Your task to perform on an android device: Open Maps and search for coffee Image 0: 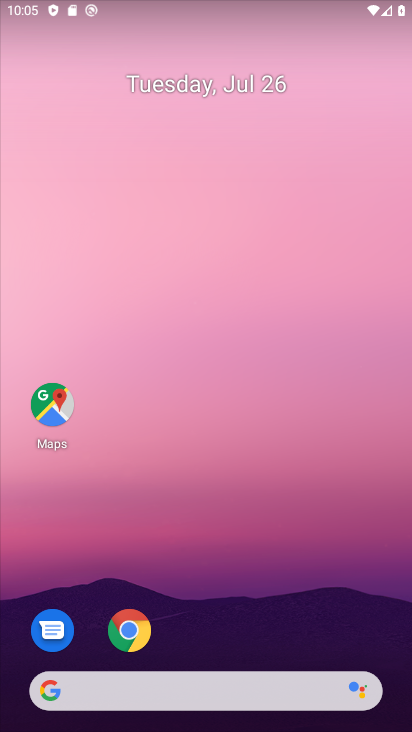
Step 0: click (53, 403)
Your task to perform on an android device: Open Maps and search for coffee Image 1: 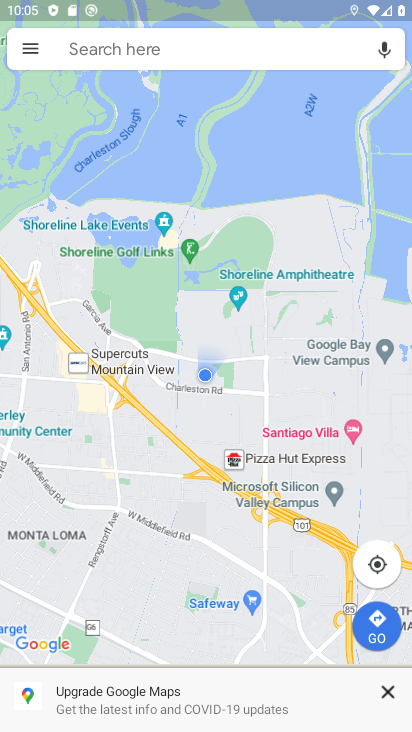
Step 1: click (132, 46)
Your task to perform on an android device: Open Maps and search for coffee Image 2: 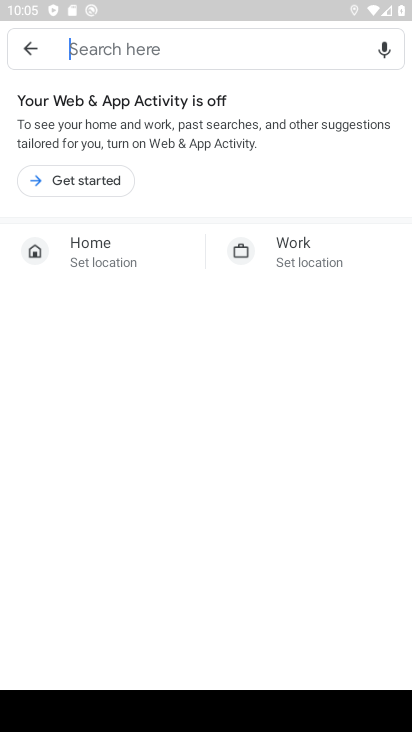
Step 2: type "coffee"
Your task to perform on an android device: Open Maps and search for coffee Image 3: 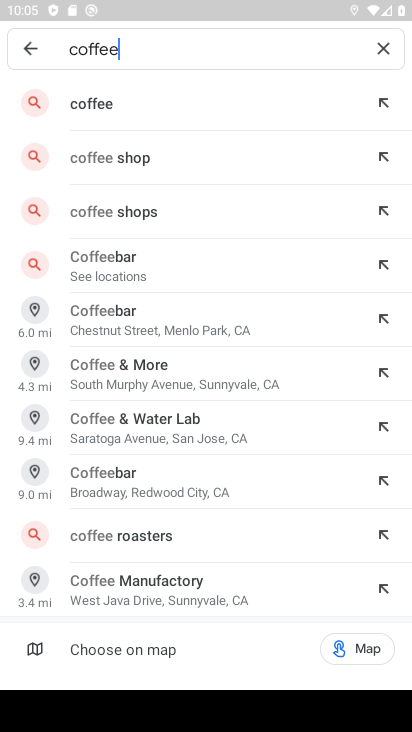
Step 3: click (100, 97)
Your task to perform on an android device: Open Maps and search for coffee Image 4: 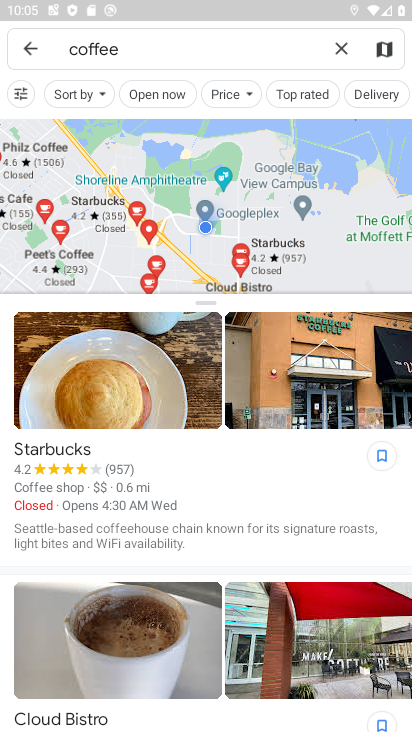
Step 4: click (214, 554)
Your task to perform on an android device: Open Maps and search for coffee Image 5: 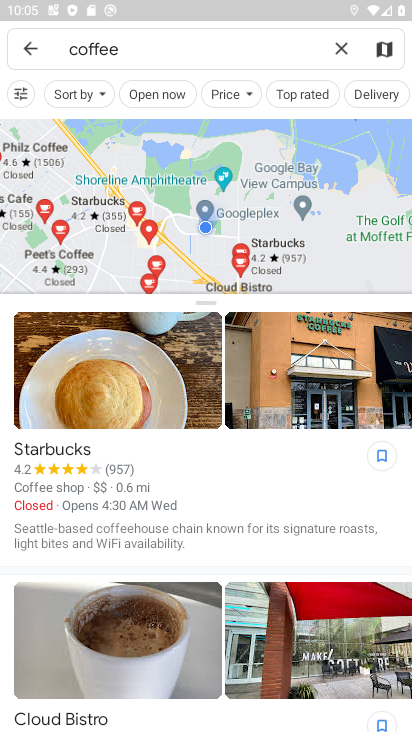
Step 5: task complete